Your task to perform on an android device: Check the news Image 0: 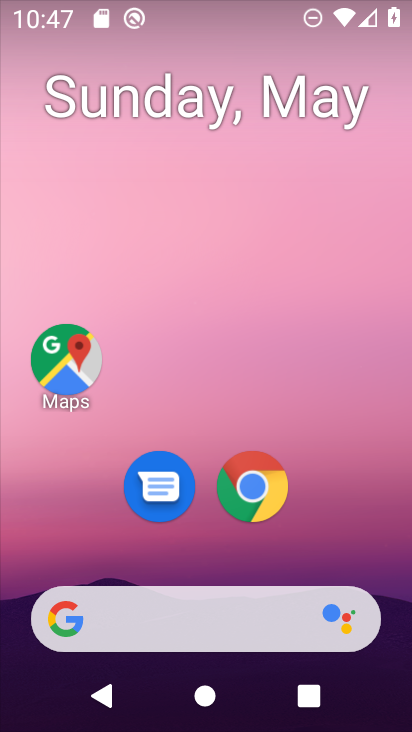
Step 0: click (251, 615)
Your task to perform on an android device: Check the news Image 1: 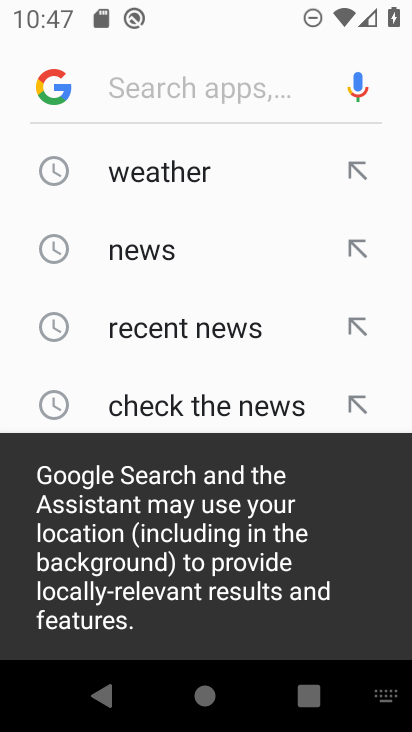
Step 1: click (186, 268)
Your task to perform on an android device: Check the news Image 2: 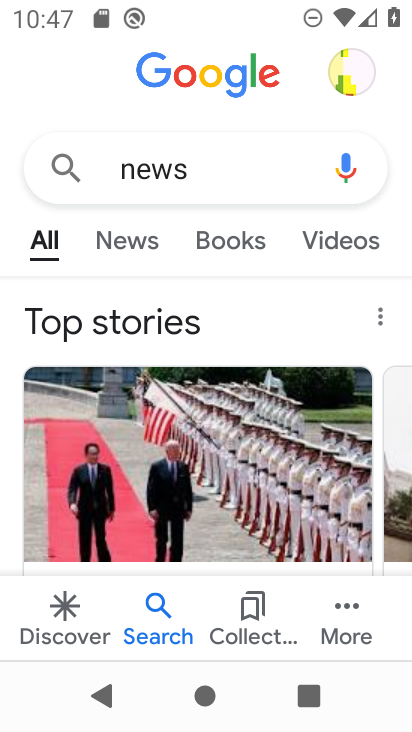
Step 2: task complete